Your task to perform on an android device: delete browsing data in the chrome app Image 0: 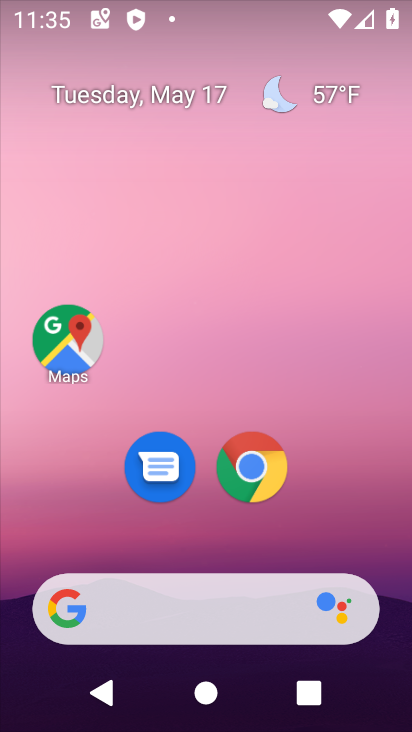
Step 0: press home button
Your task to perform on an android device: delete browsing data in the chrome app Image 1: 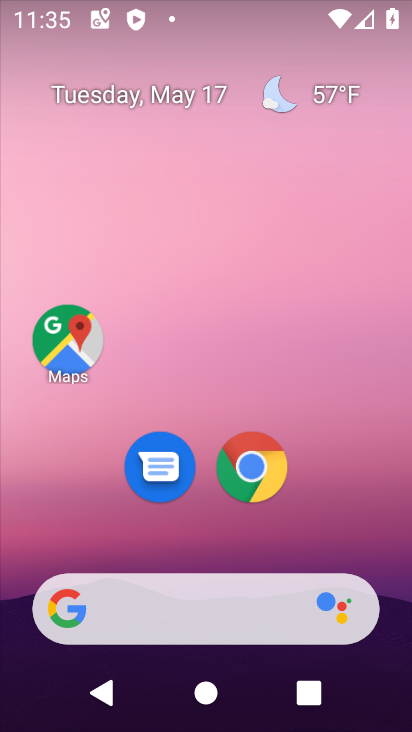
Step 1: drag from (246, 643) to (276, 206)
Your task to perform on an android device: delete browsing data in the chrome app Image 2: 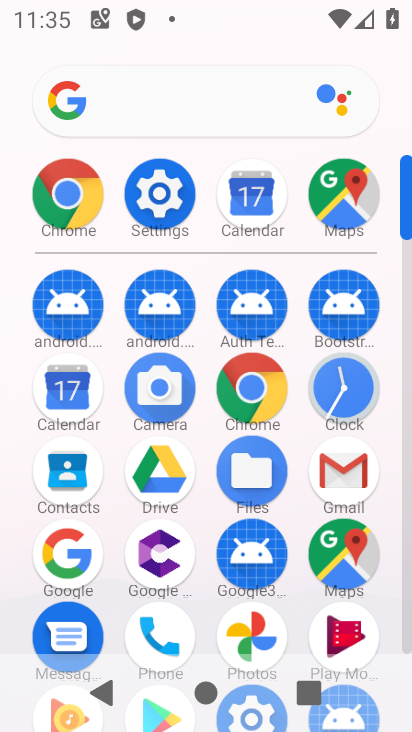
Step 2: click (73, 191)
Your task to perform on an android device: delete browsing data in the chrome app Image 3: 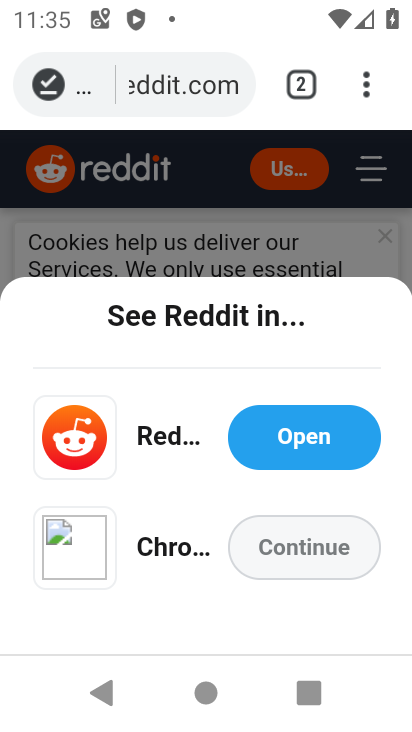
Step 3: click (374, 92)
Your task to perform on an android device: delete browsing data in the chrome app Image 4: 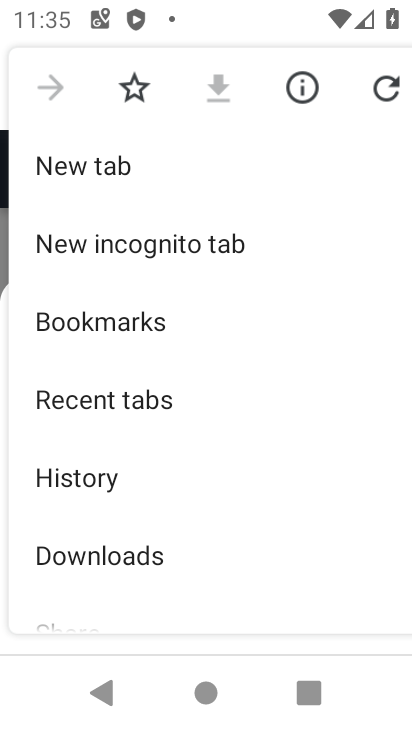
Step 4: click (120, 478)
Your task to perform on an android device: delete browsing data in the chrome app Image 5: 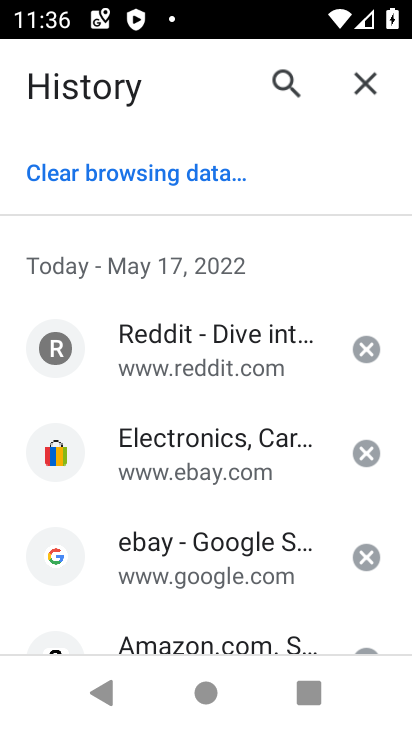
Step 5: click (107, 178)
Your task to perform on an android device: delete browsing data in the chrome app Image 6: 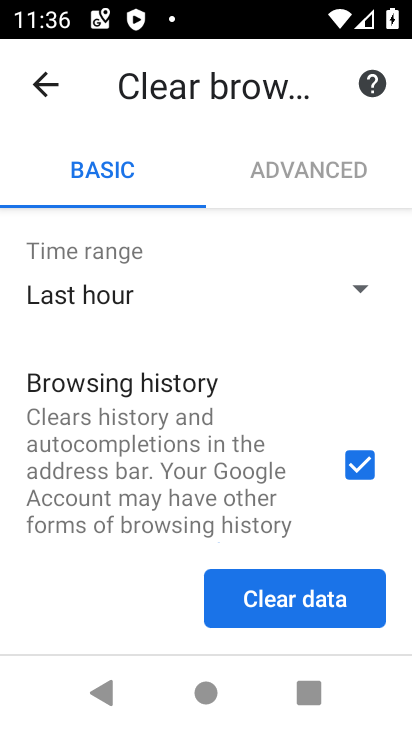
Step 6: click (274, 589)
Your task to perform on an android device: delete browsing data in the chrome app Image 7: 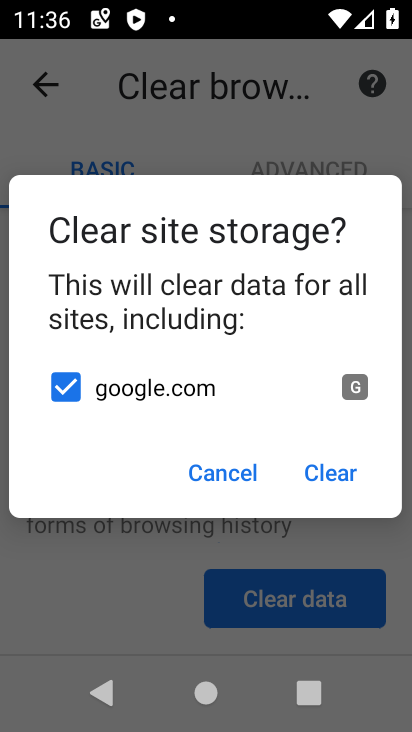
Step 7: click (312, 480)
Your task to perform on an android device: delete browsing data in the chrome app Image 8: 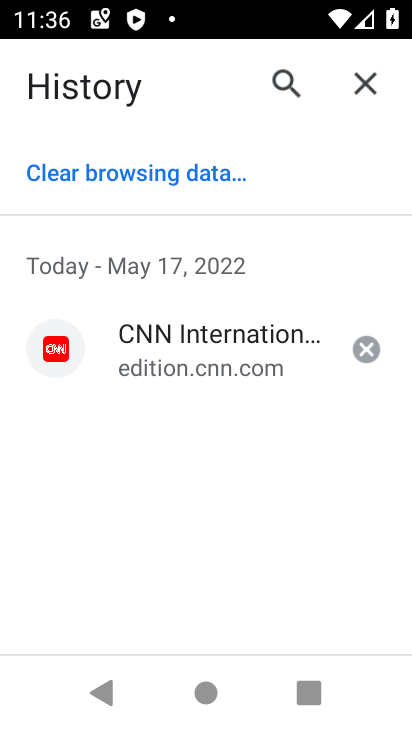
Step 8: task complete